Your task to perform on an android device: Go to ESPN.com Image 0: 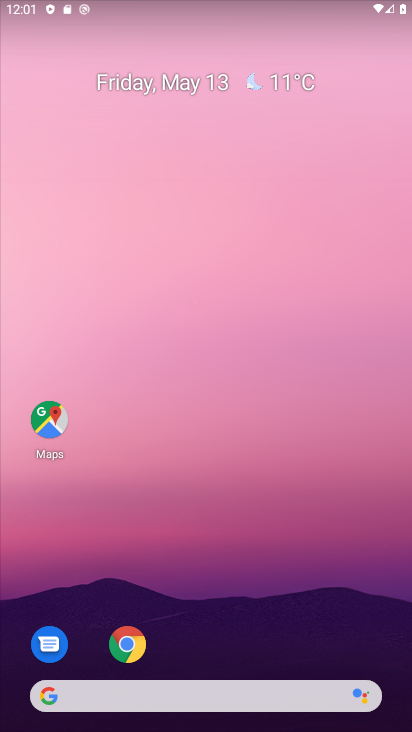
Step 0: drag from (202, 163) to (232, 12)
Your task to perform on an android device: Go to ESPN.com Image 1: 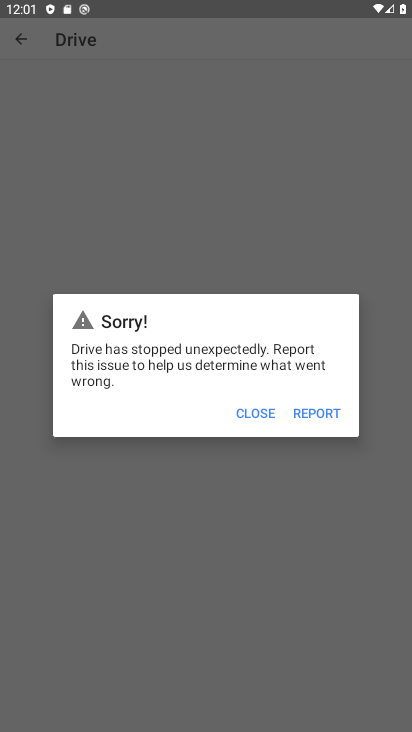
Step 1: click (258, 410)
Your task to perform on an android device: Go to ESPN.com Image 2: 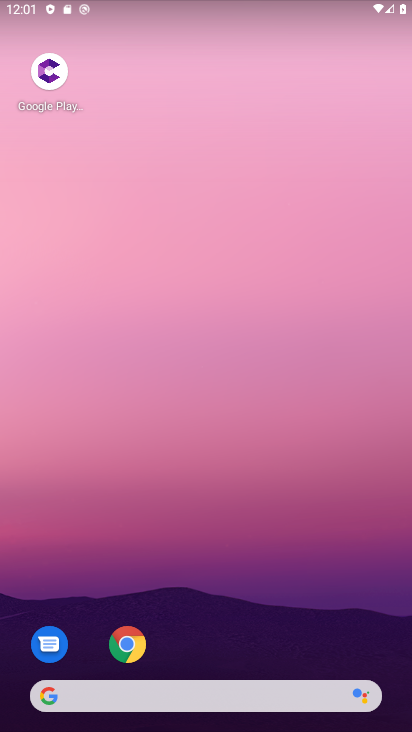
Step 2: click (132, 642)
Your task to perform on an android device: Go to ESPN.com Image 3: 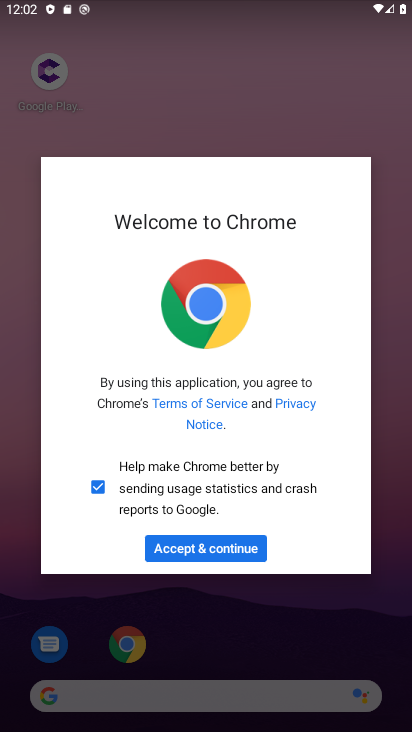
Step 3: click (194, 551)
Your task to perform on an android device: Go to ESPN.com Image 4: 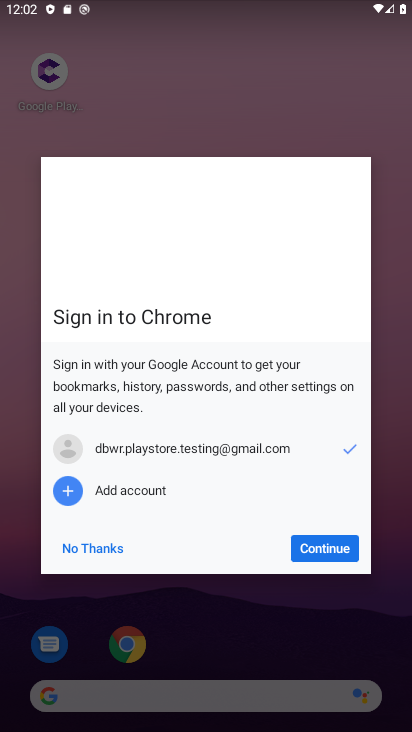
Step 4: click (322, 544)
Your task to perform on an android device: Go to ESPN.com Image 5: 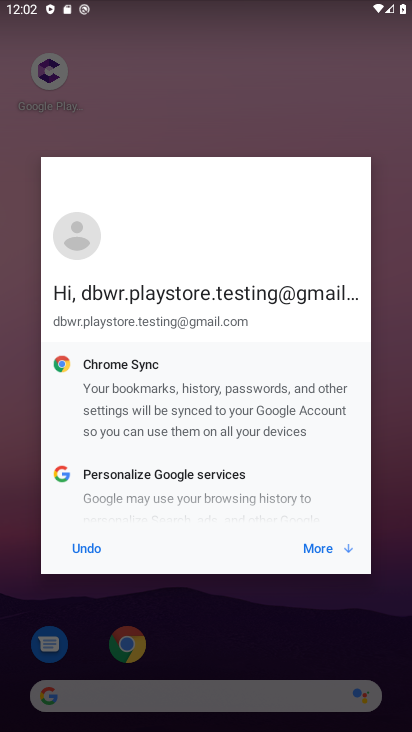
Step 5: click (314, 546)
Your task to perform on an android device: Go to ESPN.com Image 6: 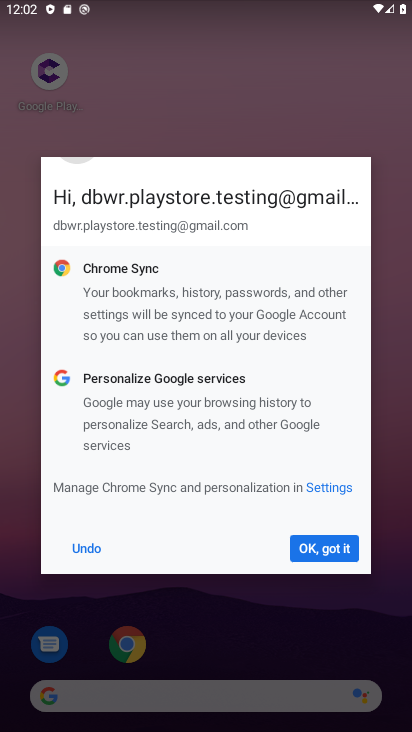
Step 6: click (324, 547)
Your task to perform on an android device: Go to ESPN.com Image 7: 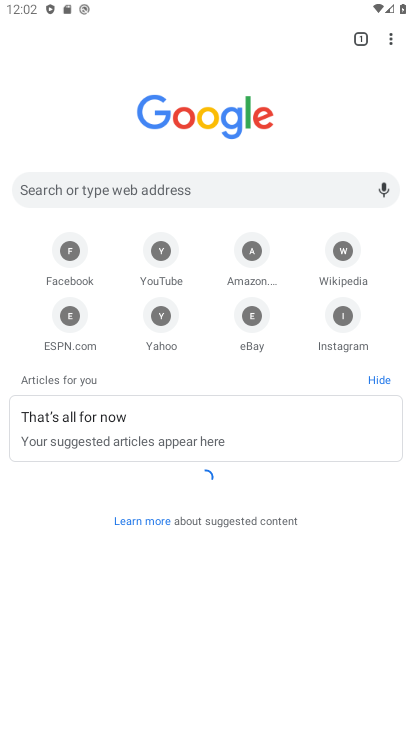
Step 7: click (186, 193)
Your task to perform on an android device: Go to ESPN.com Image 8: 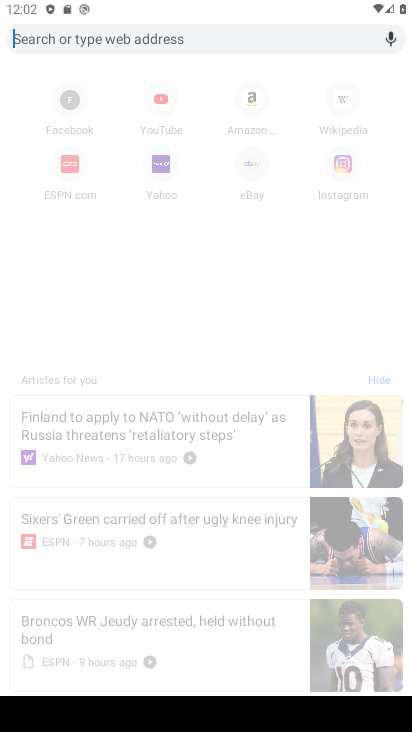
Step 8: type "ESPN.com"
Your task to perform on an android device: Go to ESPN.com Image 9: 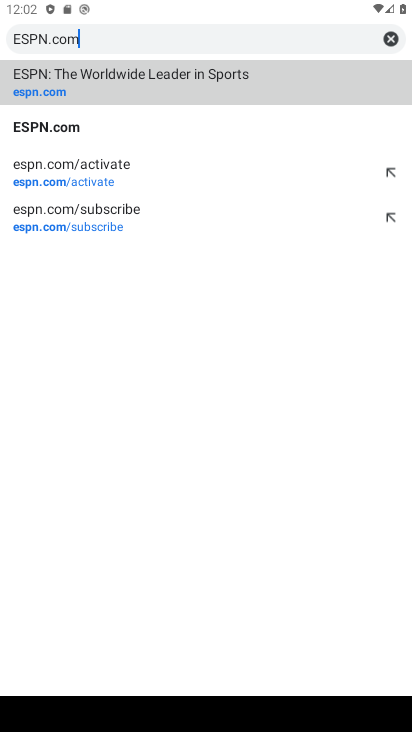
Step 9: click (167, 80)
Your task to perform on an android device: Go to ESPN.com Image 10: 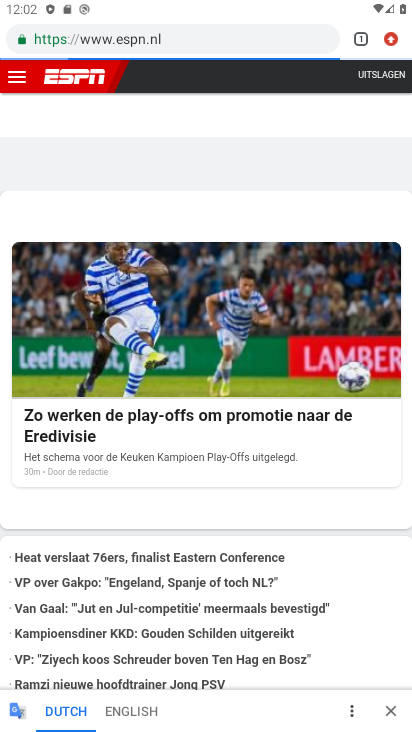
Step 10: task complete